Your task to perform on an android device: Search for vegetarian restaurants on Maps Image 0: 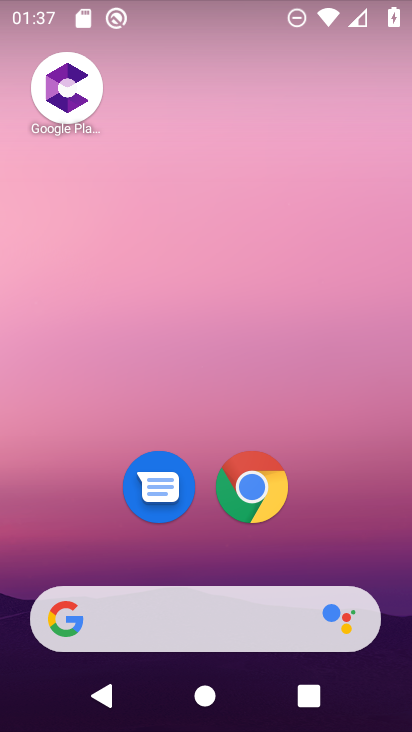
Step 0: drag from (281, 563) to (250, 167)
Your task to perform on an android device: Search for vegetarian restaurants on Maps Image 1: 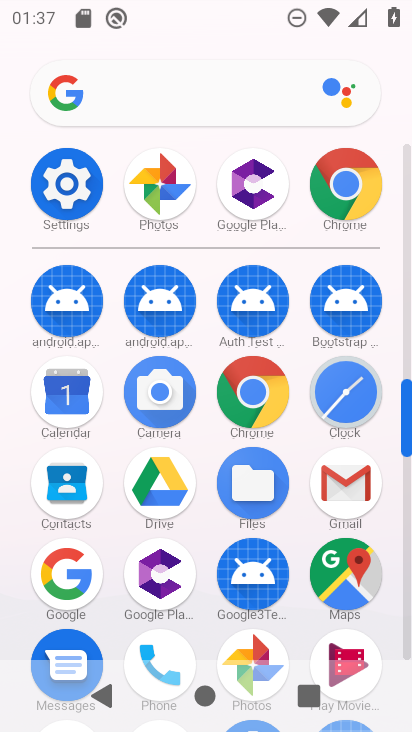
Step 1: drag from (171, 592) to (185, 423)
Your task to perform on an android device: Search for vegetarian restaurants on Maps Image 2: 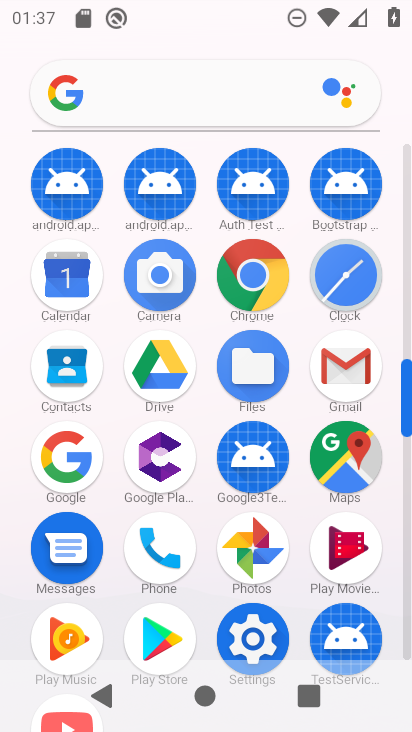
Step 2: click (340, 445)
Your task to perform on an android device: Search for vegetarian restaurants on Maps Image 3: 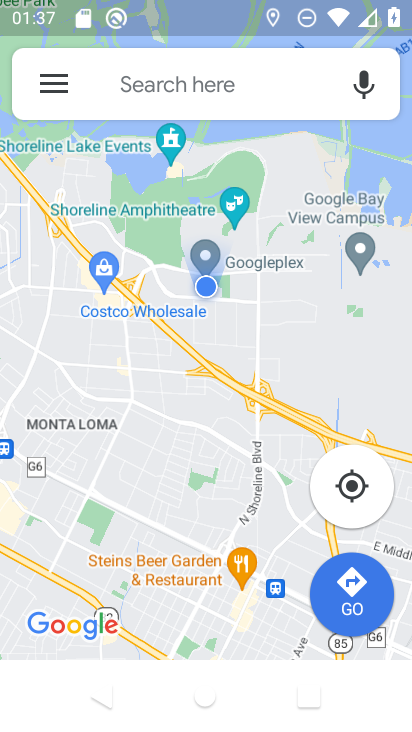
Step 3: click (124, 72)
Your task to perform on an android device: Search for vegetarian restaurants on Maps Image 4: 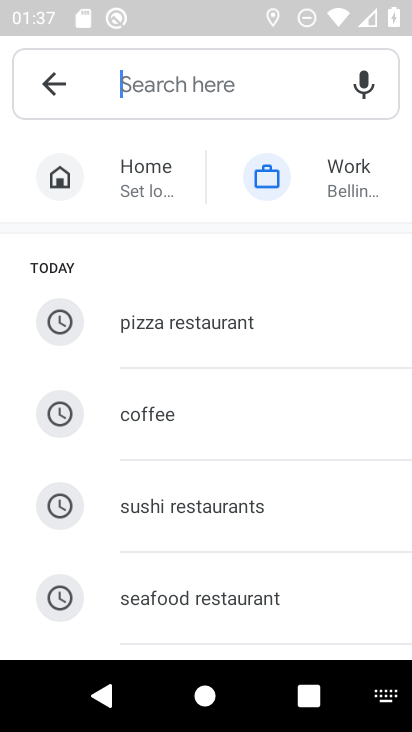
Step 4: drag from (209, 545) to (224, 374)
Your task to perform on an android device: Search for vegetarian restaurants on Maps Image 5: 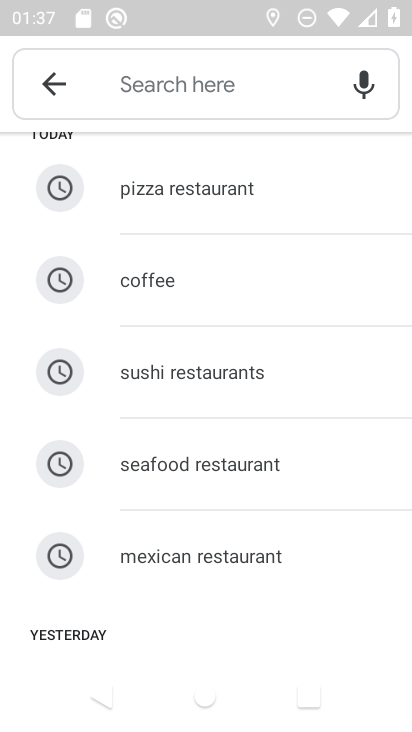
Step 5: drag from (203, 550) to (287, 256)
Your task to perform on an android device: Search for vegetarian restaurants on Maps Image 6: 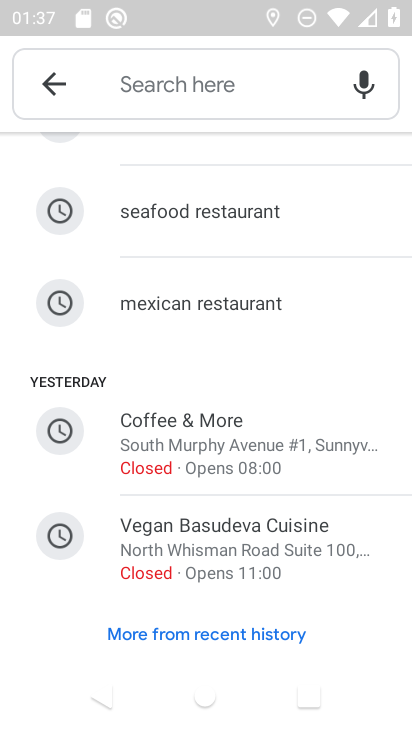
Step 6: click (224, 69)
Your task to perform on an android device: Search for vegetarian restaurants on Maps Image 7: 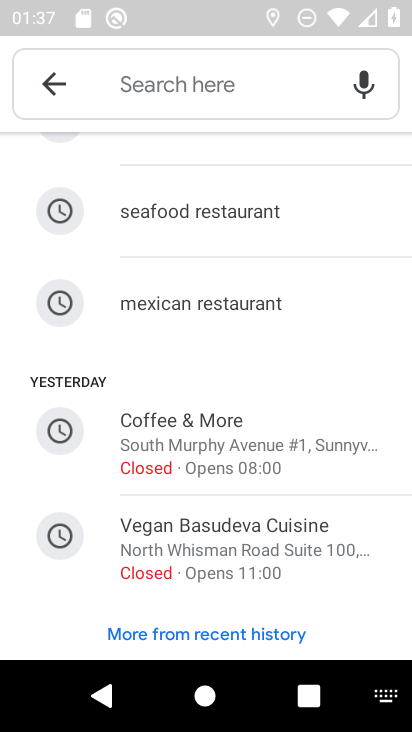
Step 7: type " vegetarian restaurants "
Your task to perform on an android device: Search for vegetarian restaurants on Maps Image 8: 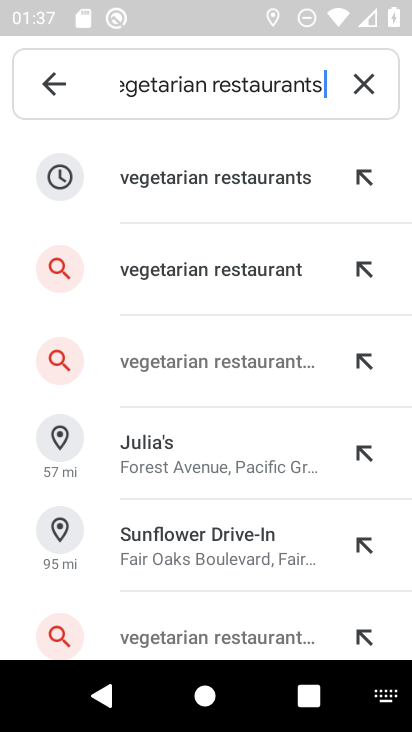
Step 8: click (209, 163)
Your task to perform on an android device: Search for vegetarian restaurants on Maps Image 9: 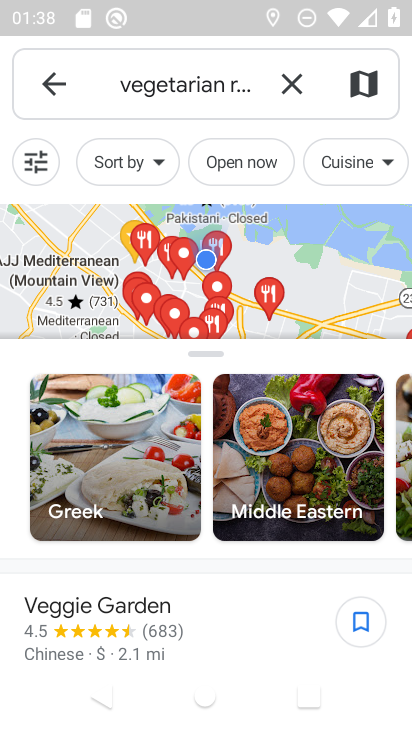
Step 9: task complete